Your task to perform on an android device: uninstall "Calculator" Image 0: 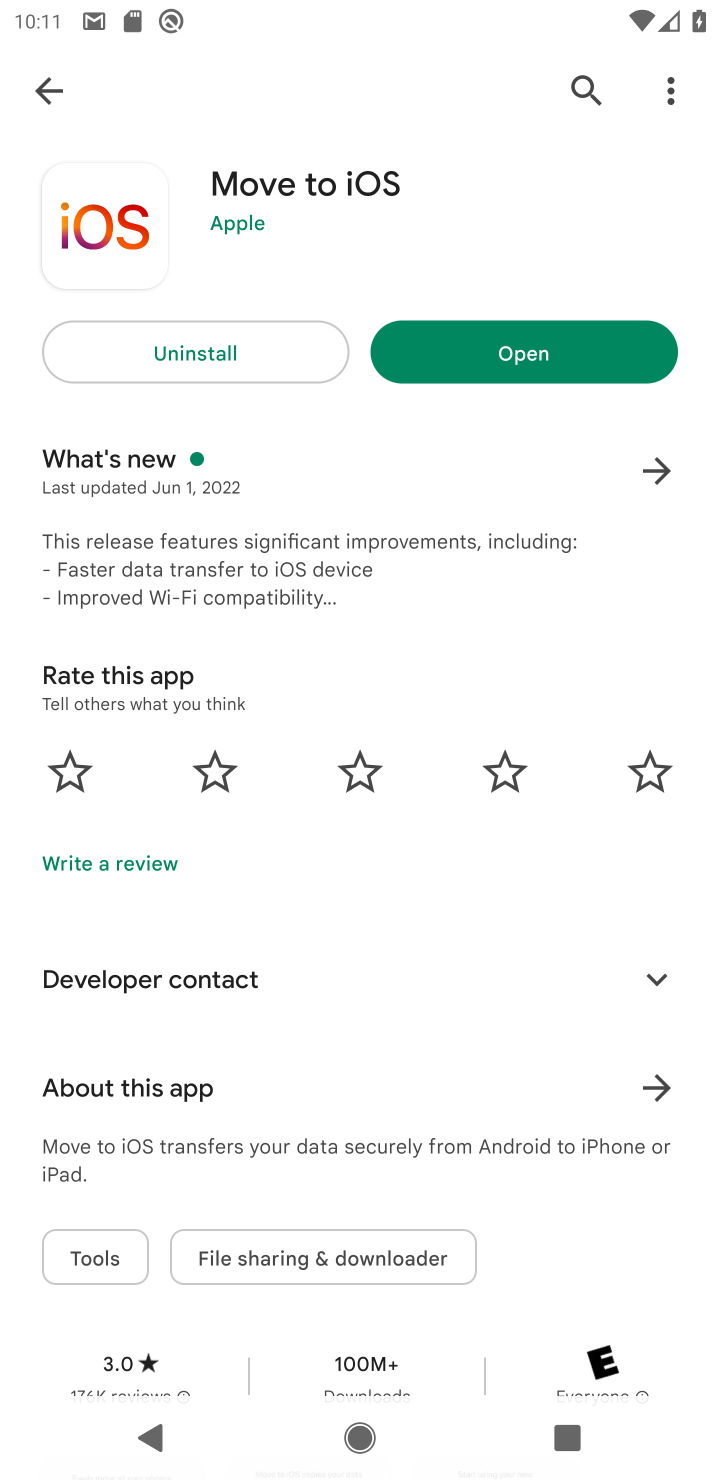
Step 0: press home button
Your task to perform on an android device: uninstall "Calculator" Image 1: 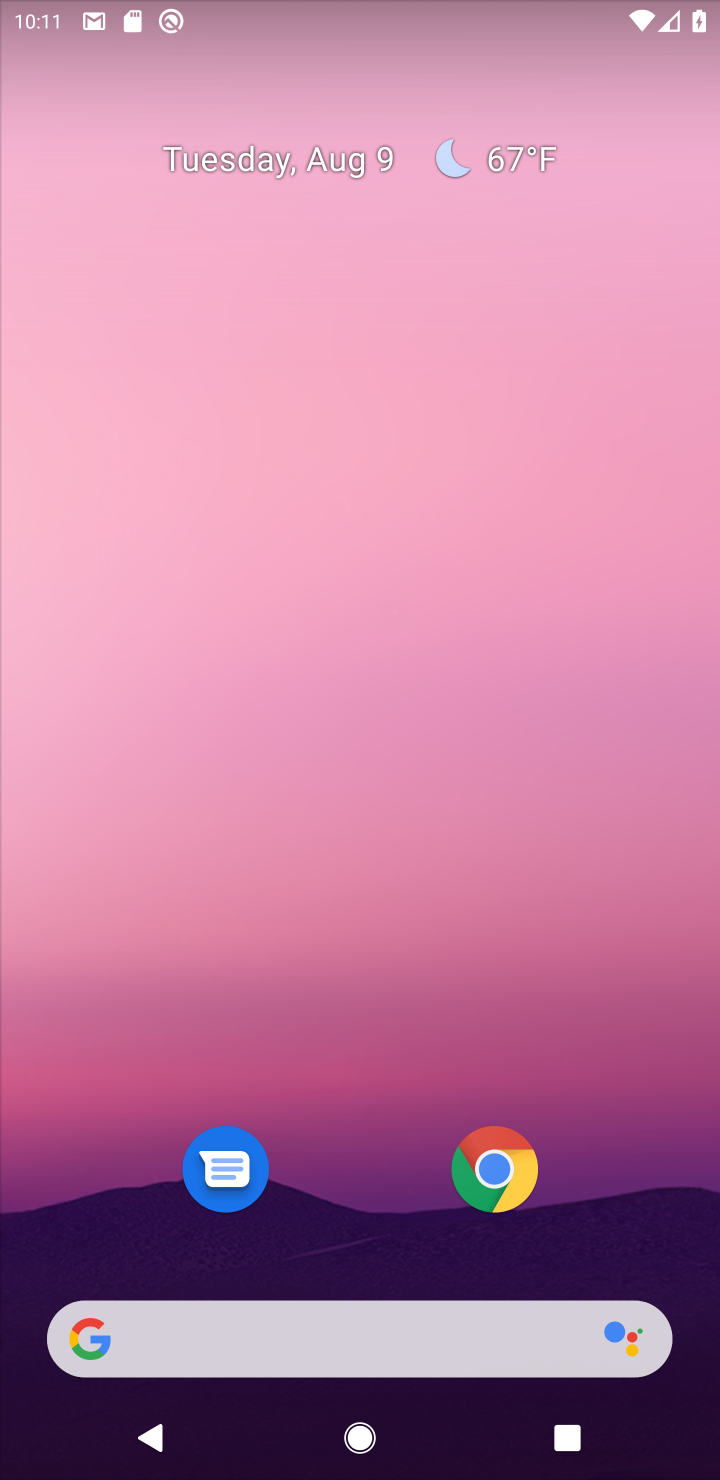
Step 1: drag from (639, 1200) to (612, 167)
Your task to perform on an android device: uninstall "Calculator" Image 2: 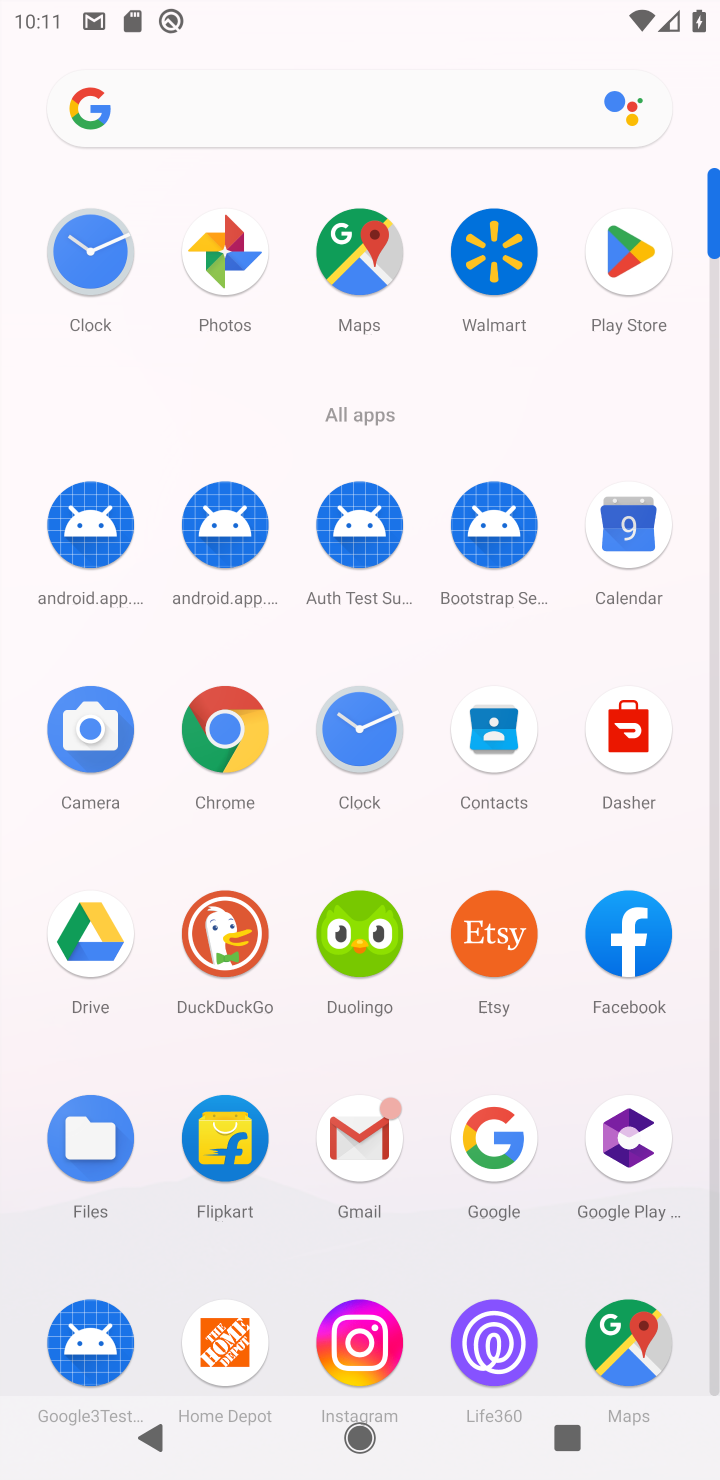
Step 2: click (629, 244)
Your task to perform on an android device: uninstall "Calculator" Image 3: 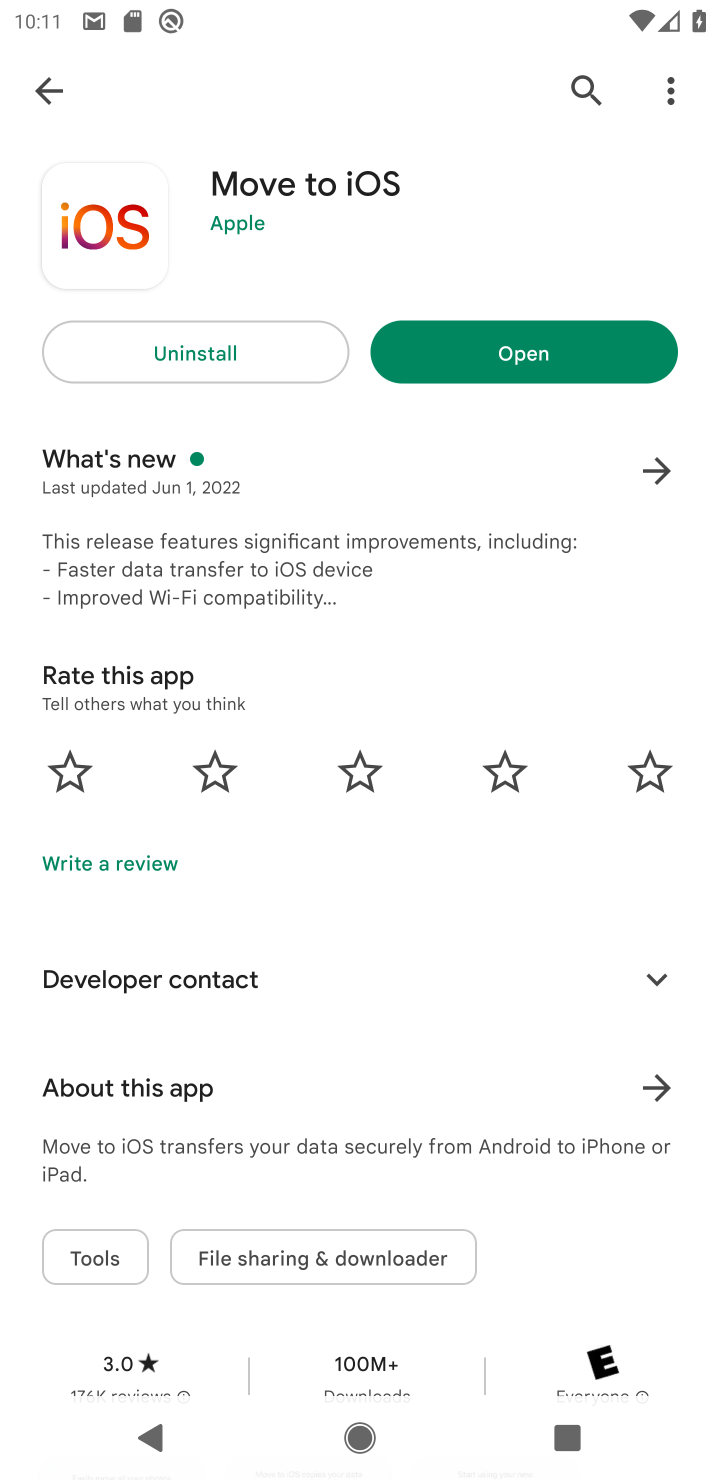
Step 3: click (584, 87)
Your task to perform on an android device: uninstall "Calculator" Image 4: 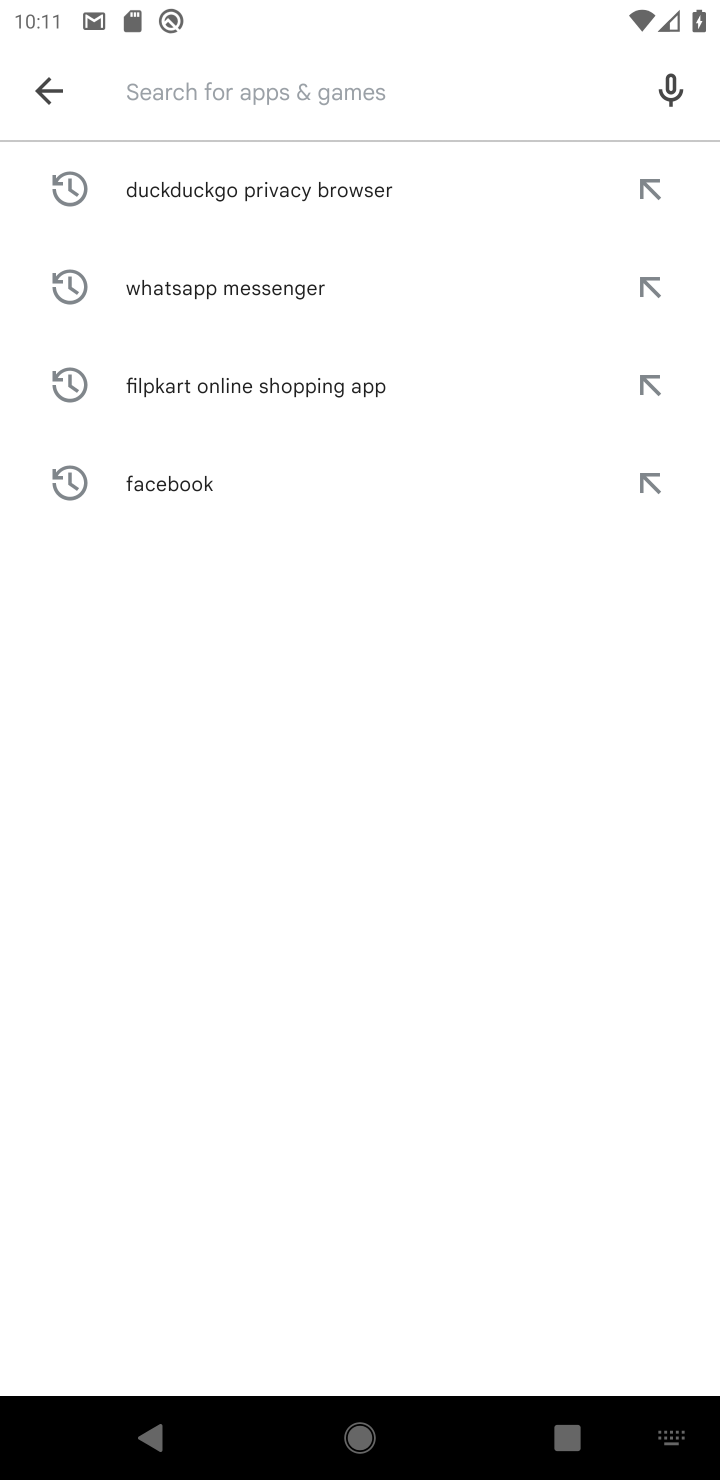
Step 4: type "calculator"
Your task to perform on an android device: uninstall "Calculator" Image 5: 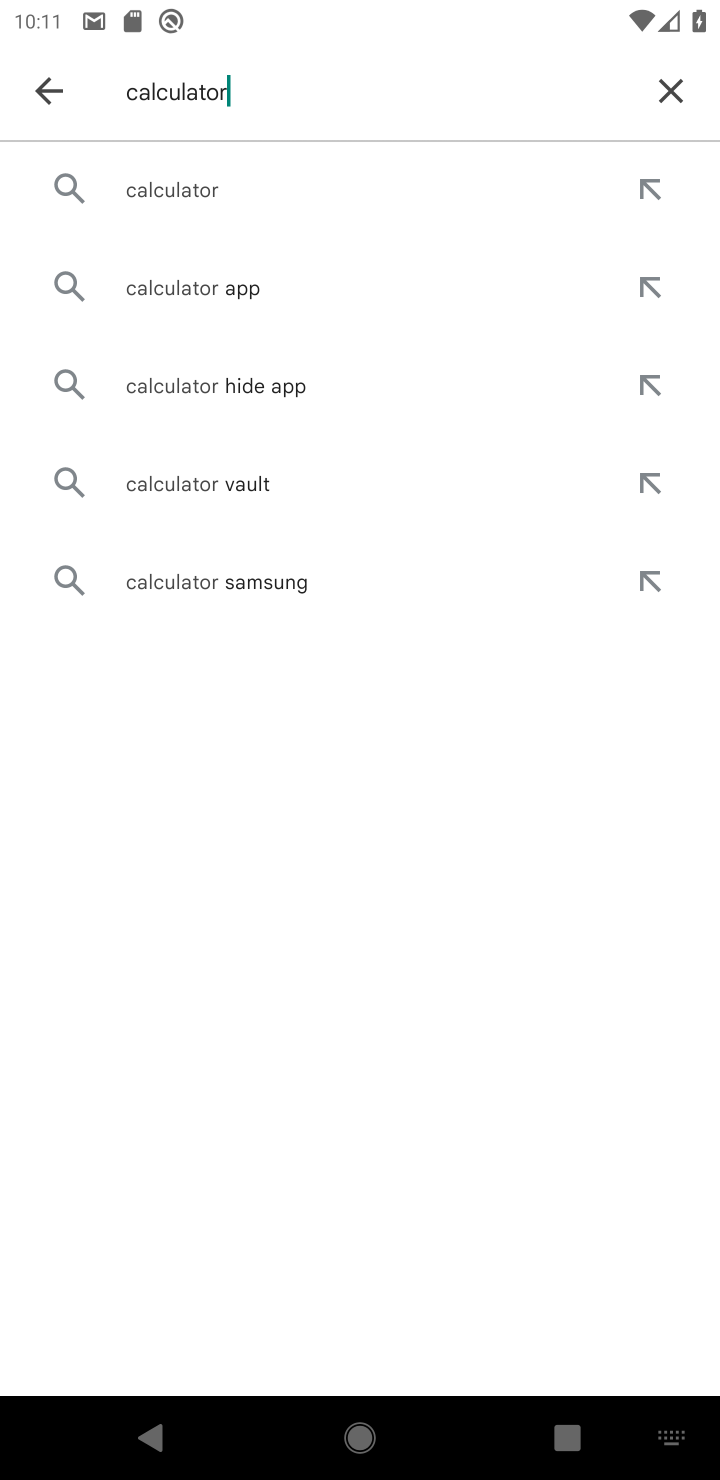
Step 5: click (187, 190)
Your task to perform on an android device: uninstall "Calculator" Image 6: 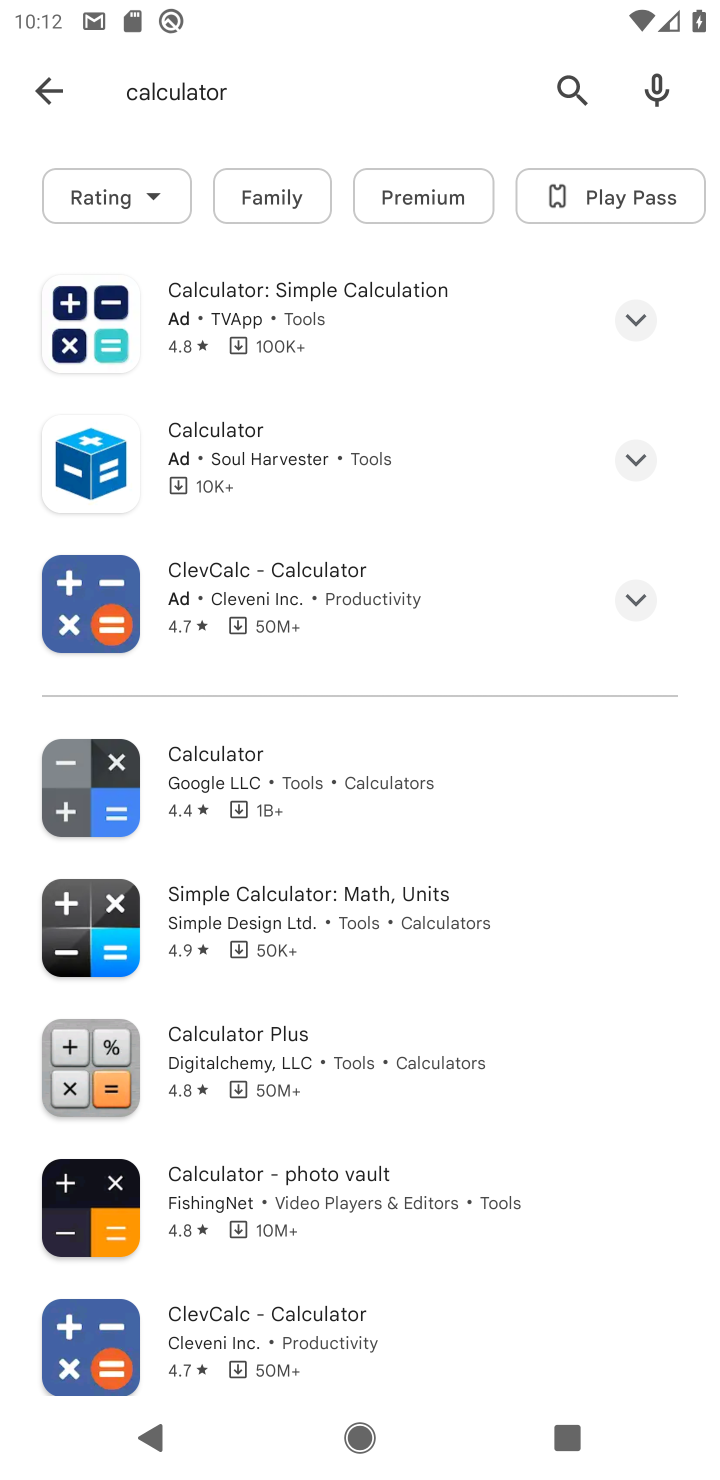
Step 6: task complete